Your task to perform on an android device: Search for sushi restaurants on Maps Image 0: 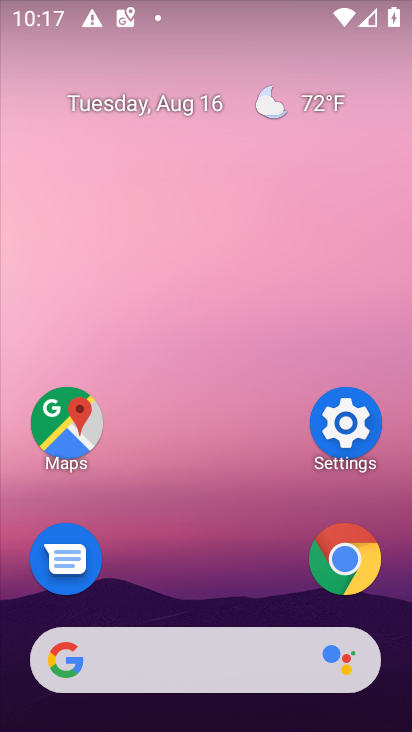
Step 0: click (67, 425)
Your task to perform on an android device: Search for sushi restaurants on Maps Image 1: 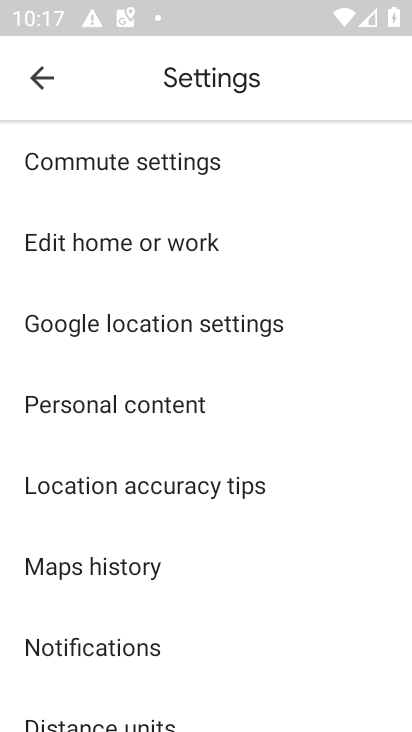
Step 1: press back button
Your task to perform on an android device: Search for sushi restaurants on Maps Image 2: 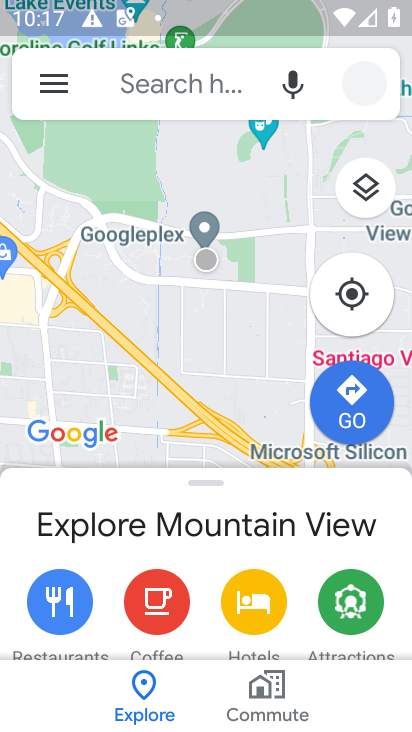
Step 2: press back button
Your task to perform on an android device: Search for sushi restaurants on Maps Image 3: 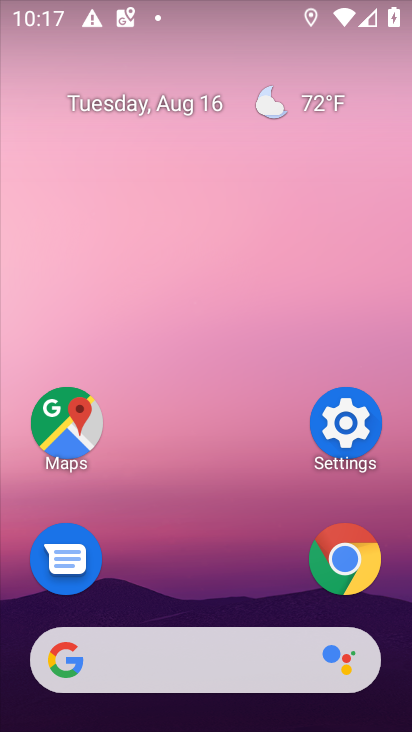
Step 3: click (65, 414)
Your task to perform on an android device: Search for sushi restaurants on Maps Image 4: 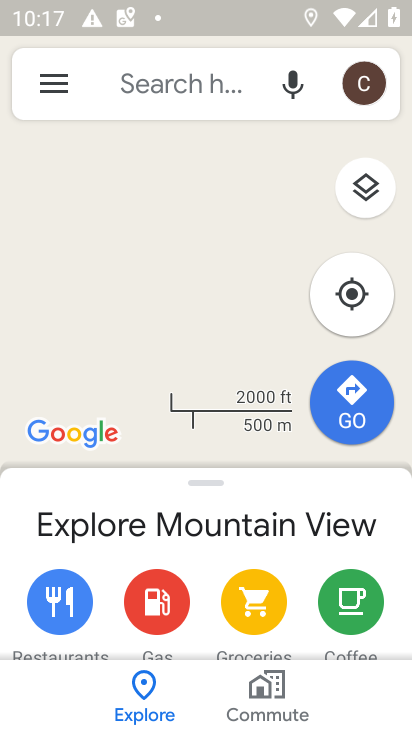
Step 4: click (137, 82)
Your task to perform on an android device: Search for sushi restaurants on Maps Image 5: 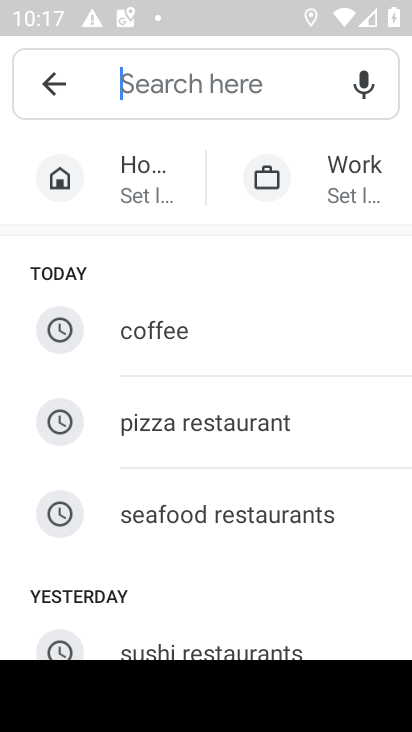
Step 5: drag from (244, 617) to (273, 296)
Your task to perform on an android device: Search for sushi restaurants on Maps Image 6: 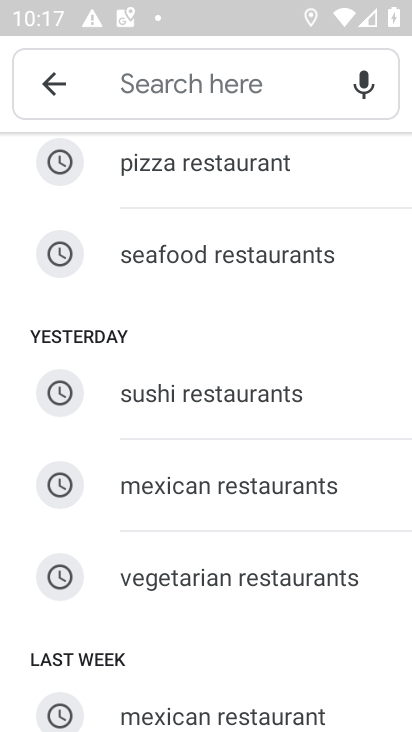
Step 6: click (220, 391)
Your task to perform on an android device: Search for sushi restaurants on Maps Image 7: 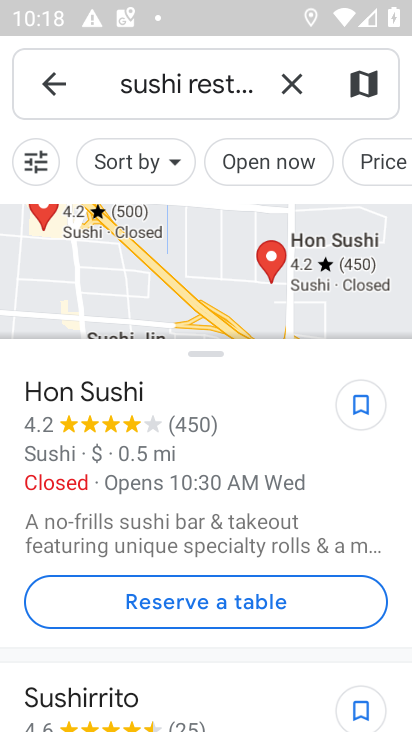
Step 7: task complete